Your task to perform on an android device: set default search engine in the chrome app Image 0: 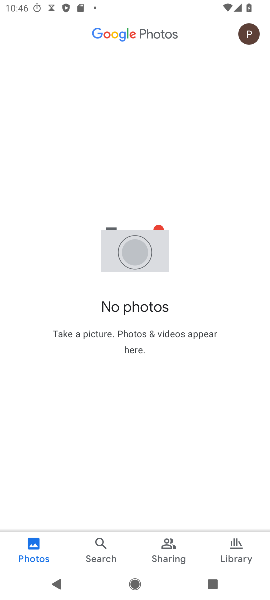
Step 0: press home button
Your task to perform on an android device: set default search engine in the chrome app Image 1: 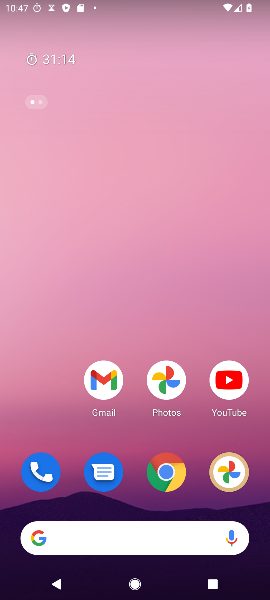
Step 1: drag from (139, 328) to (123, 52)
Your task to perform on an android device: set default search engine in the chrome app Image 2: 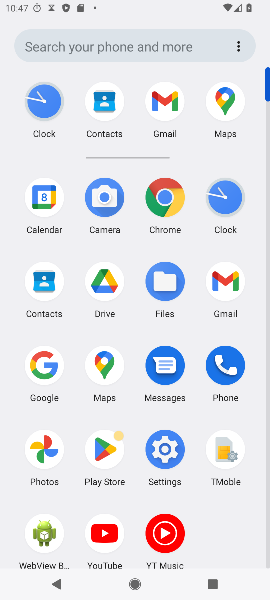
Step 2: click (158, 207)
Your task to perform on an android device: set default search engine in the chrome app Image 3: 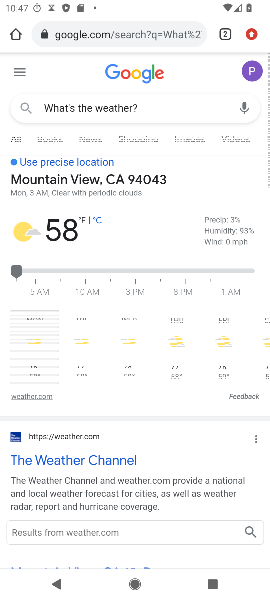
Step 3: click (249, 39)
Your task to perform on an android device: set default search engine in the chrome app Image 4: 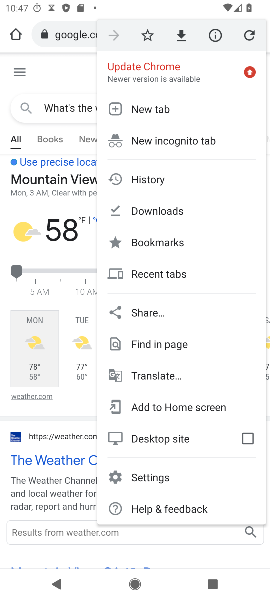
Step 4: click (168, 472)
Your task to perform on an android device: set default search engine in the chrome app Image 5: 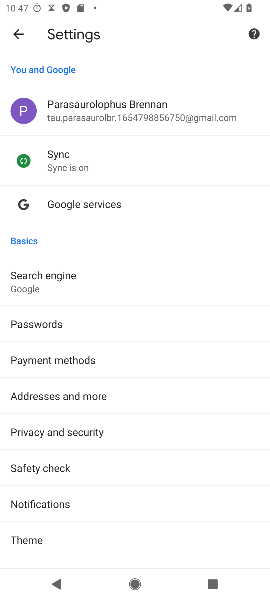
Step 5: click (149, 277)
Your task to perform on an android device: set default search engine in the chrome app Image 6: 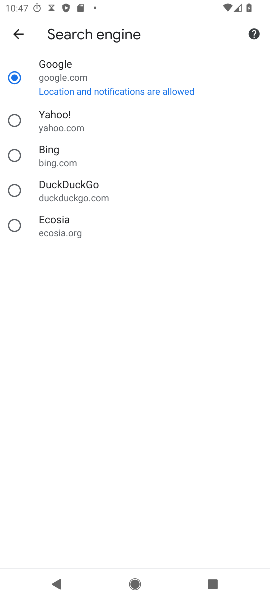
Step 6: click (126, 138)
Your task to perform on an android device: set default search engine in the chrome app Image 7: 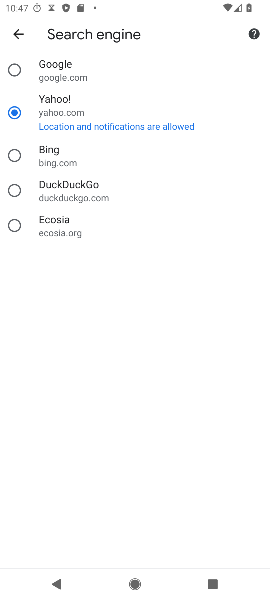
Step 7: task complete